Your task to perform on an android device: Open Google Chrome Image 0: 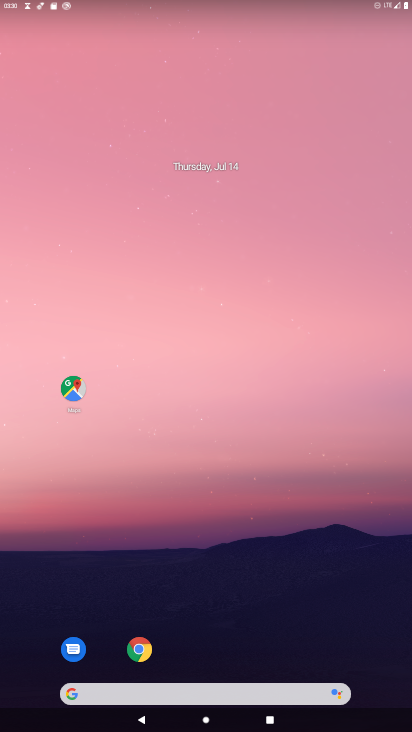
Step 0: drag from (140, 698) to (256, 59)
Your task to perform on an android device: Open Google Chrome Image 1: 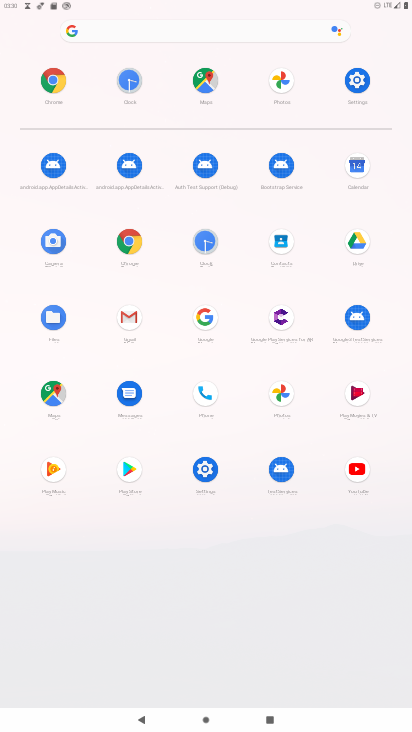
Step 1: click (128, 238)
Your task to perform on an android device: Open Google Chrome Image 2: 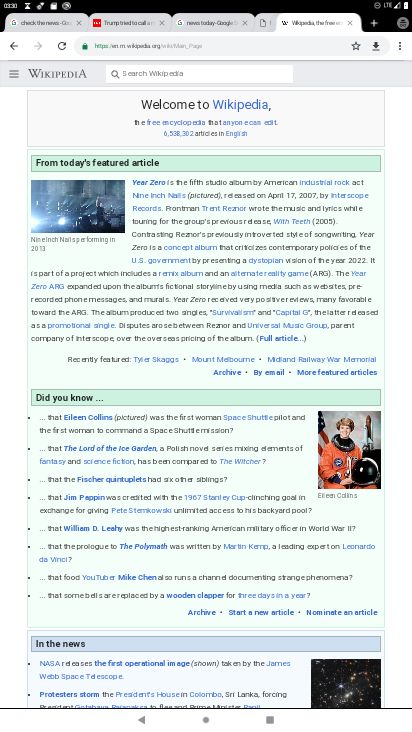
Step 2: task complete